Your task to perform on an android device: toggle data saver in the chrome app Image 0: 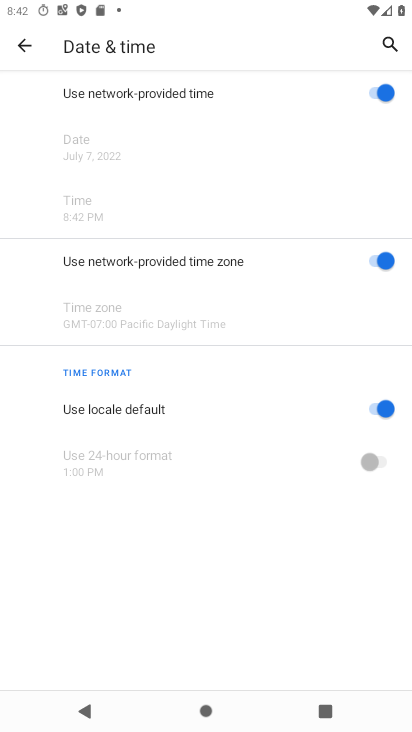
Step 0: press home button
Your task to perform on an android device: toggle data saver in the chrome app Image 1: 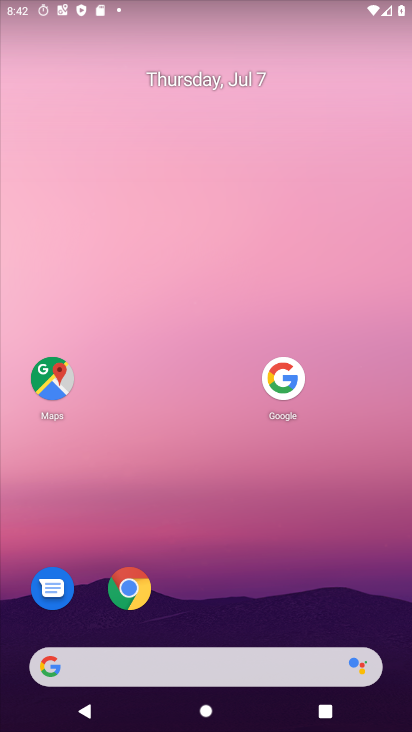
Step 1: click (141, 587)
Your task to perform on an android device: toggle data saver in the chrome app Image 2: 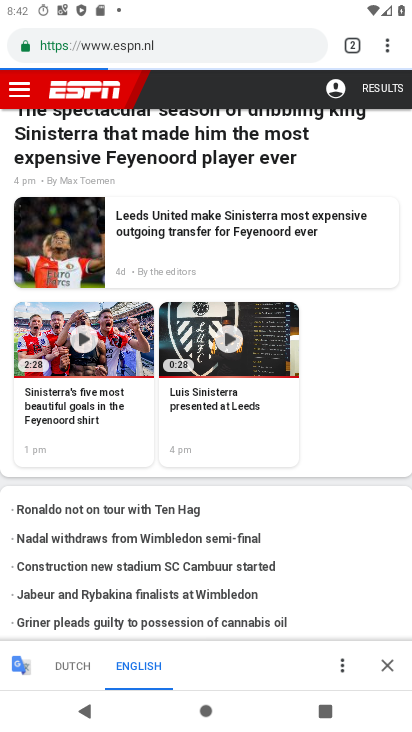
Step 2: drag from (384, 43) to (248, 514)
Your task to perform on an android device: toggle data saver in the chrome app Image 3: 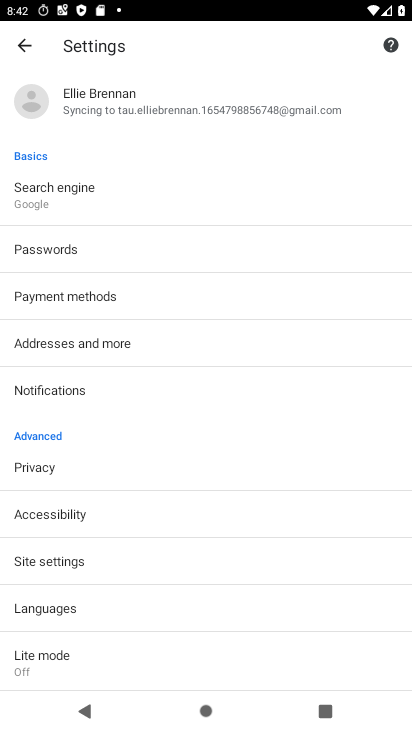
Step 3: click (72, 654)
Your task to perform on an android device: toggle data saver in the chrome app Image 4: 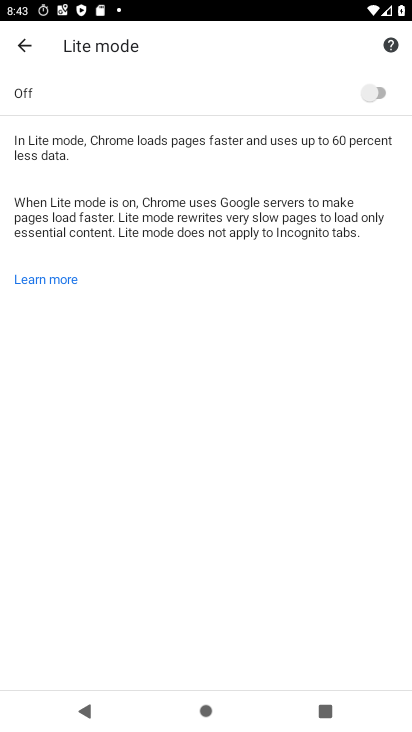
Step 4: click (379, 91)
Your task to perform on an android device: toggle data saver in the chrome app Image 5: 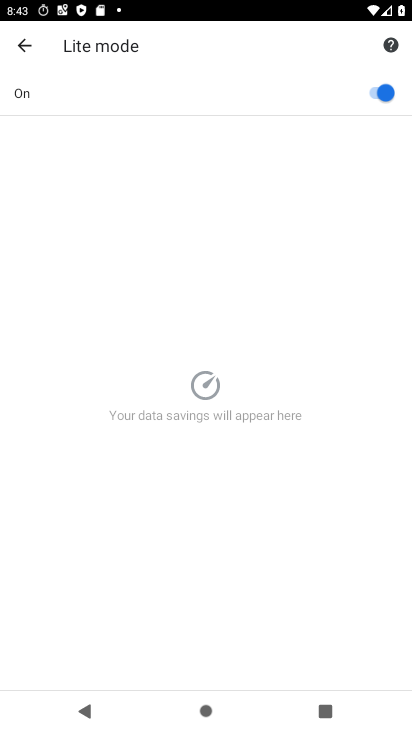
Step 5: task complete